Your task to perform on an android device: check storage Image 0: 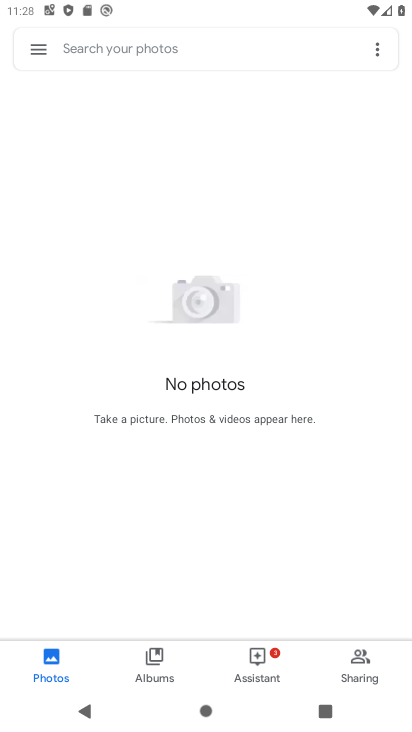
Step 0: press home button
Your task to perform on an android device: check storage Image 1: 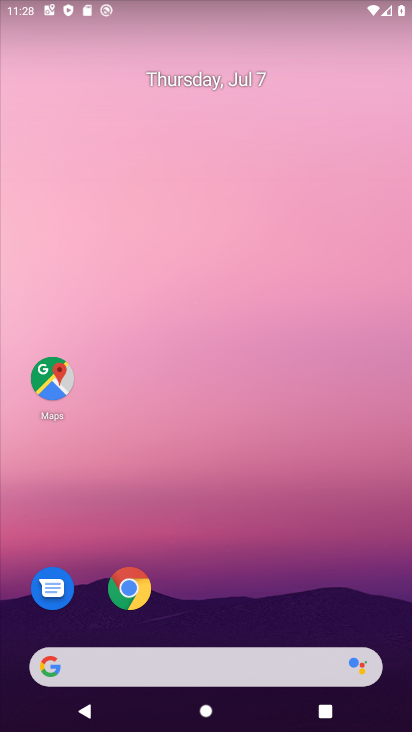
Step 1: drag from (312, 587) to (272, 210)
Your task to perform on an android device: check storage Image 2: 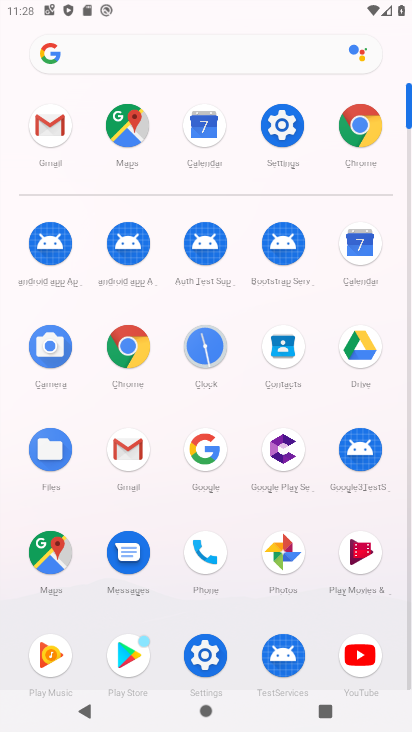
Step 2: click (273, 123)
Your task to perform on an android device: check storage Image 3: 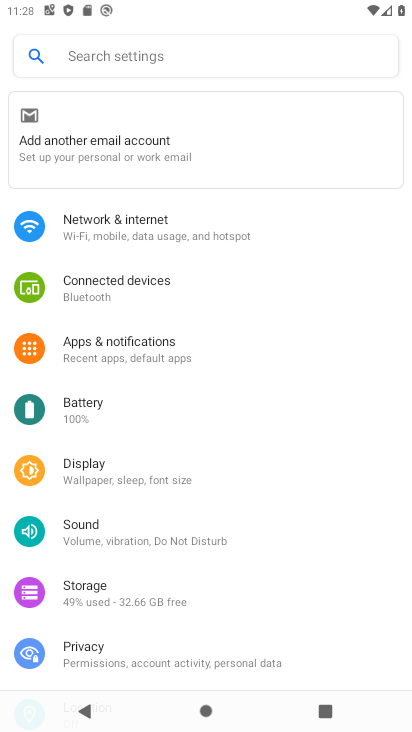
Step 3: click (81, 587)
Your task to perform on an android device: check storage Image 4: 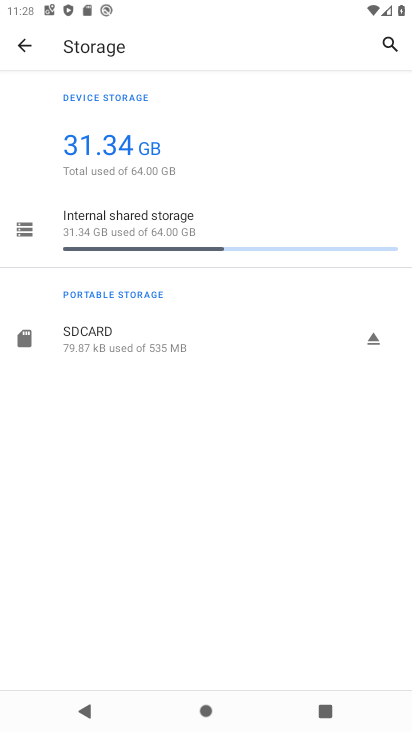
Step 4: task complete